Your task to perform on an android device: clear all cookies in the chrome app Image 0: 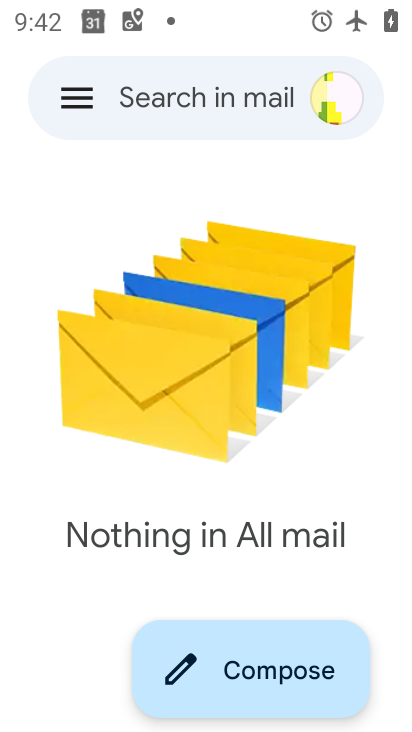
Step 0: press home button
Your task to perform on an android device: clear all cookies in the chrome app Image 1: 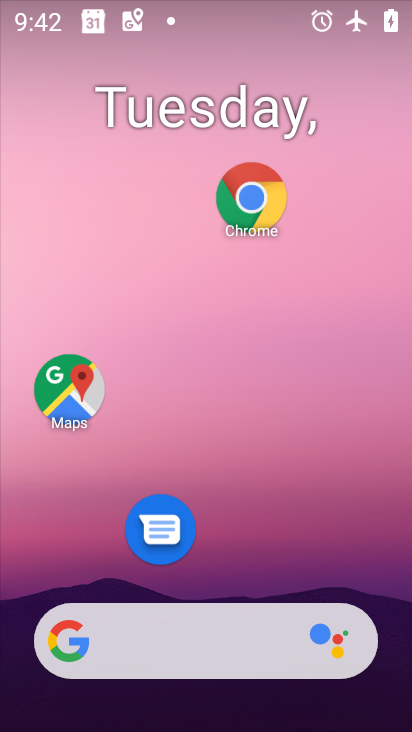
Step 1: drag from (351, 512) to (343, 112)
Your task to perform on an android device: clear all cookies in the chrome app Image 2: 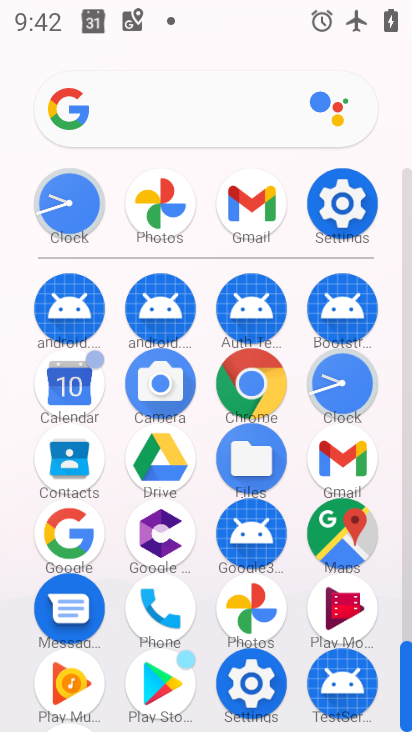
Step 2: click (254, 385)
Your task to perform on an android device: clear all cookies in the chrome app Image 3: 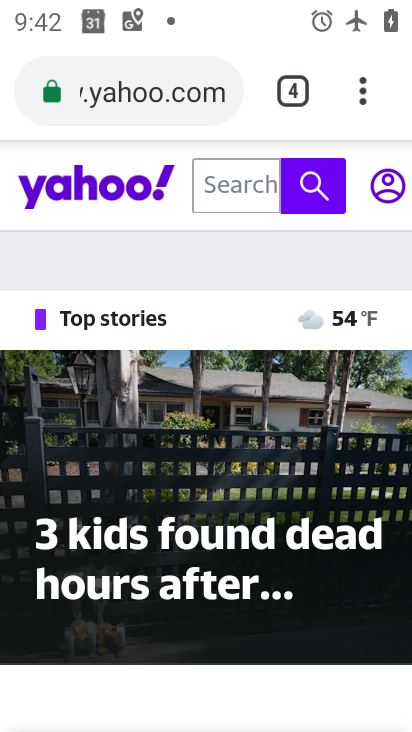
Step 3: click (367, 91)
Your task to perform on an android device: clear all cookies in the chrome app Image 4: 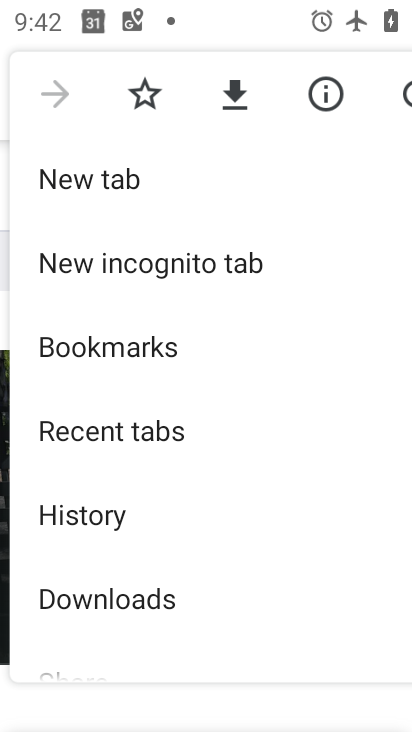
Step 4: drag from (228, 411) to (294, 110)
Your task to perform on an android device: clear all cookies in the chrome app Image 5: 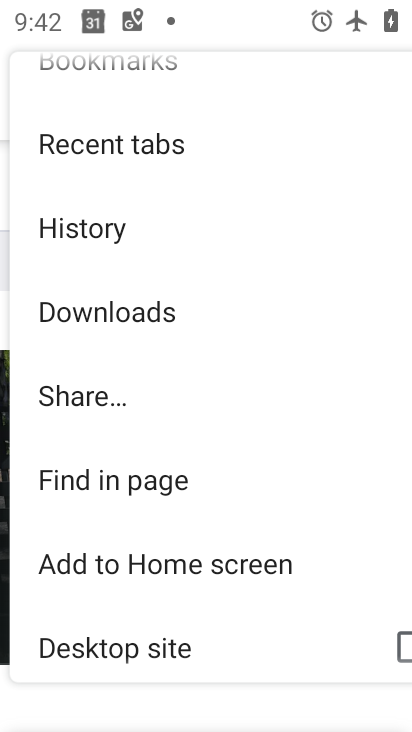
Step 5: drag from (193, 576) to (222, 265)
Your task to perform on an android device: clear all cookies in the chrome app Image 6: 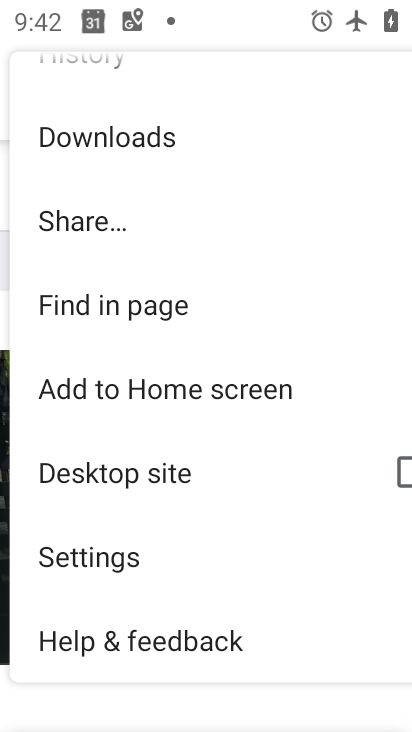
Step 6: click (194, 542)
Your task to perform on an android device: clear all cookies in the chrome app Image 7: 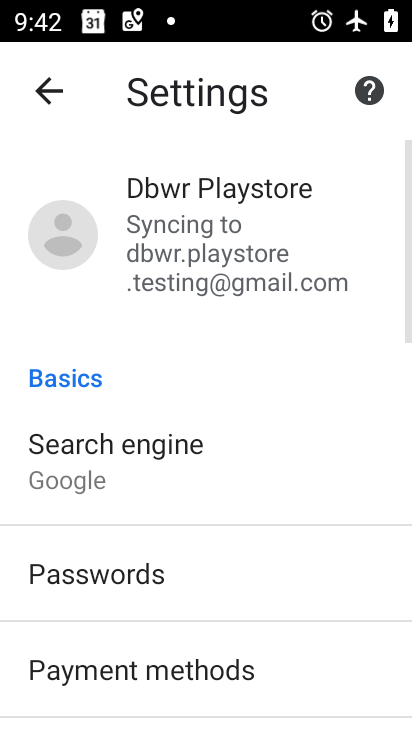
Step 7: task complete